Your task to perform on an android device: Search for sushi restaurants on Maps Image 0: 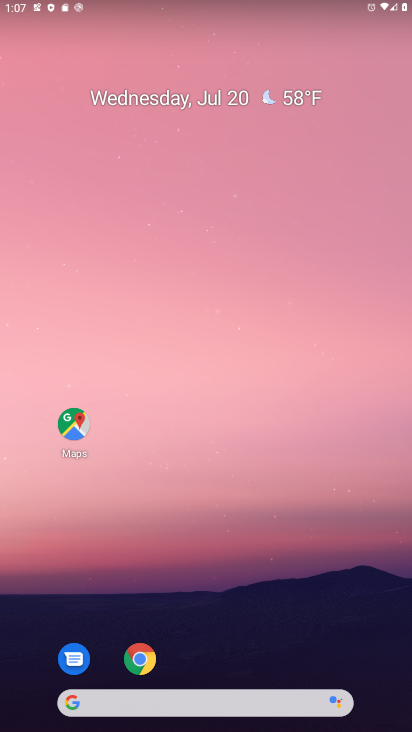
Step 0: click (65, 418)
Your task to perform on an android device: Search for sushi restaurants on Maps Image 1: 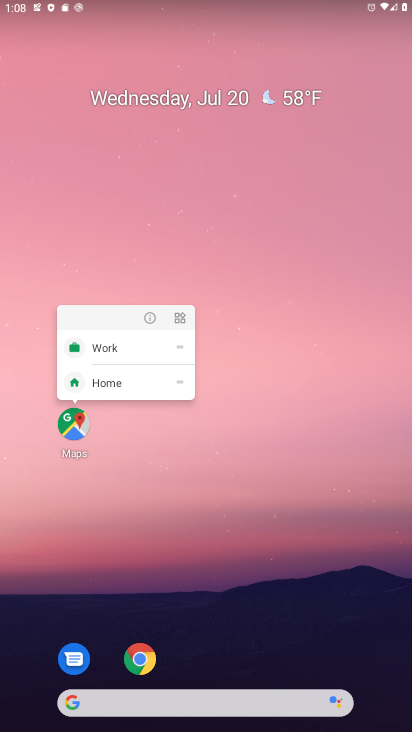
Step 1: click (61, 423)
Your task to perform on an android device: Search for sushi restaurants on Maps Image 2: 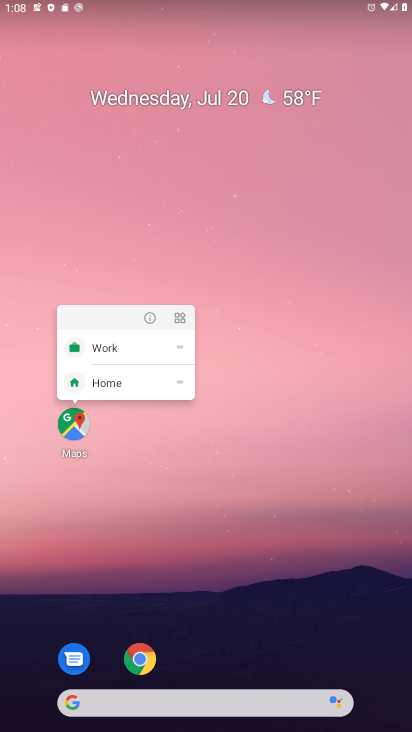
Step 2: click (76, 417)
Your task to perform on an android device: Search for sushi restaurants on Maps Image 3: 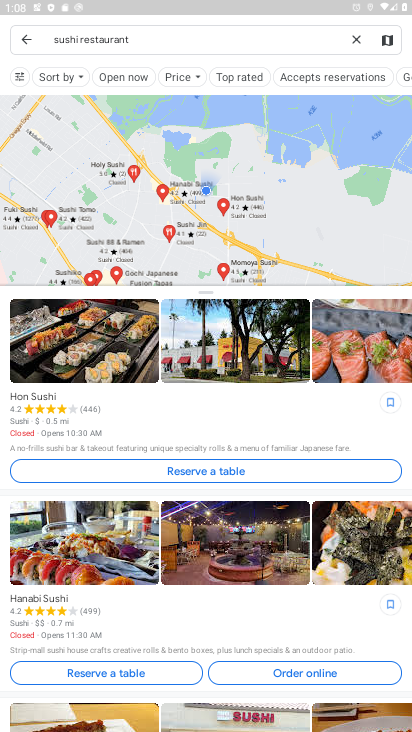
Step 3: task complete